Your task to perform on an android device: open wifi settings Image 0: 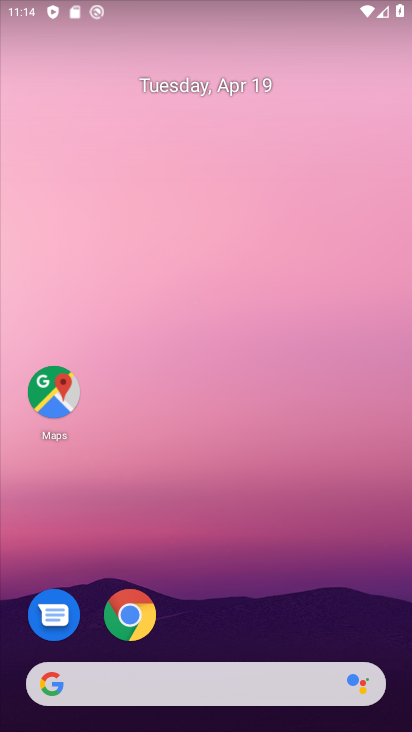
Step 0: drag from (210, 568) to (207, 166)
Your task to perform on an android device: open wifi settings Image 1: 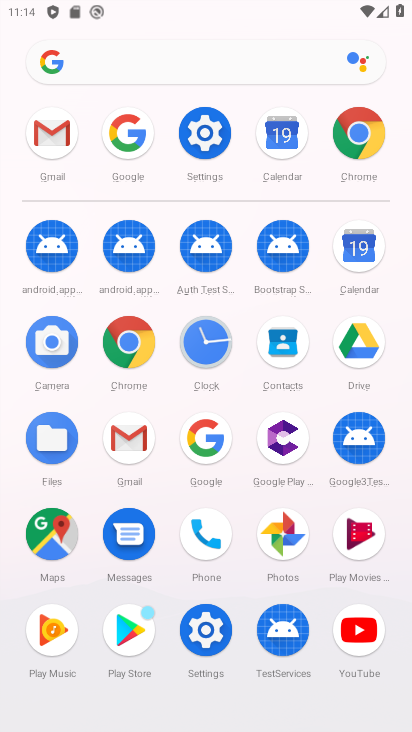
Step 1: click (202, 133)
Your task to perform on an android device: open wifi settings Image 2: 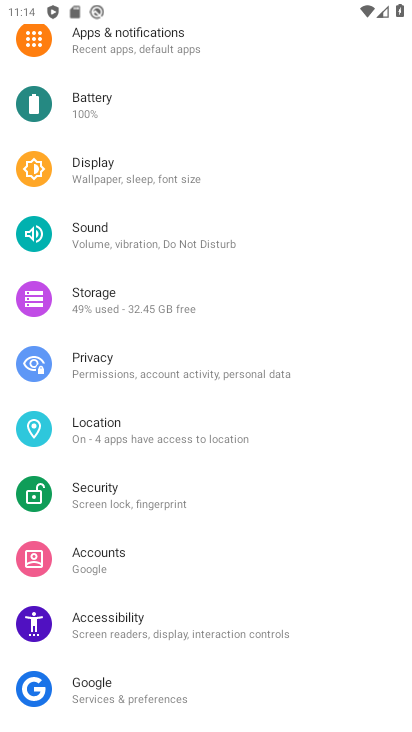
Step 2: drag from (258, 460) to (263, 611)
Your task to perform on an android device: open wifi settings Image 3: 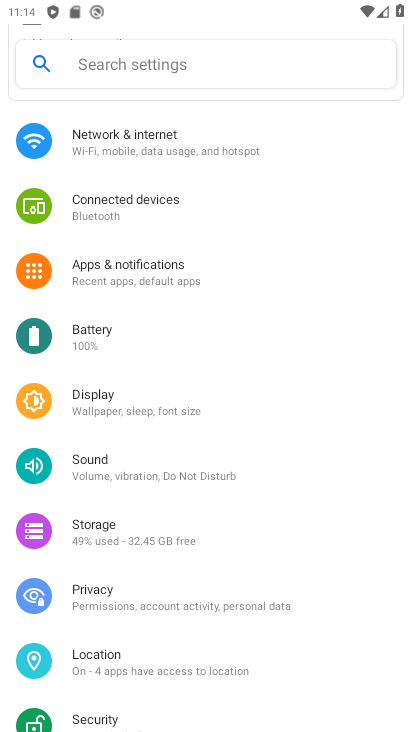
Step 3: click (157, 148)
Your task to perform on an android device: open wifi settings Image 4: 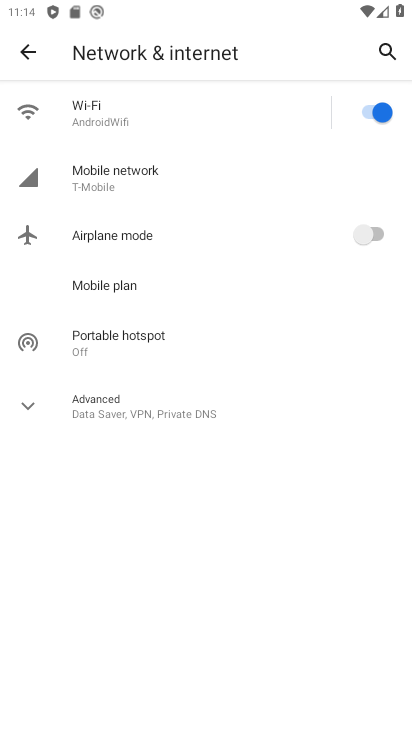
Step 4: click (130, 115)
Your task to perform on an android device: open wifi settings Image 5: 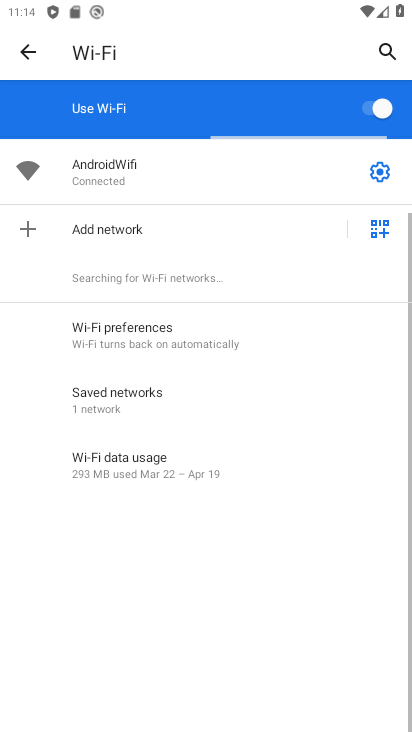
Step 5: click (377, 172)
Your task to perform on an android device: open wifi settings Image 6: 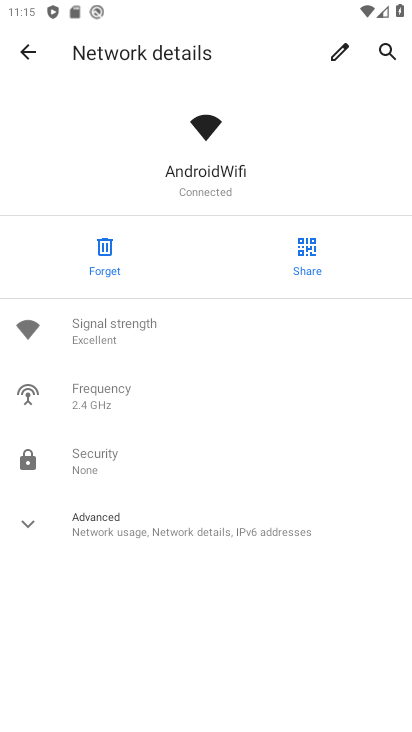
Step 6: task complete